Your task to perform on an android device: change the clock display to digital Image 0: 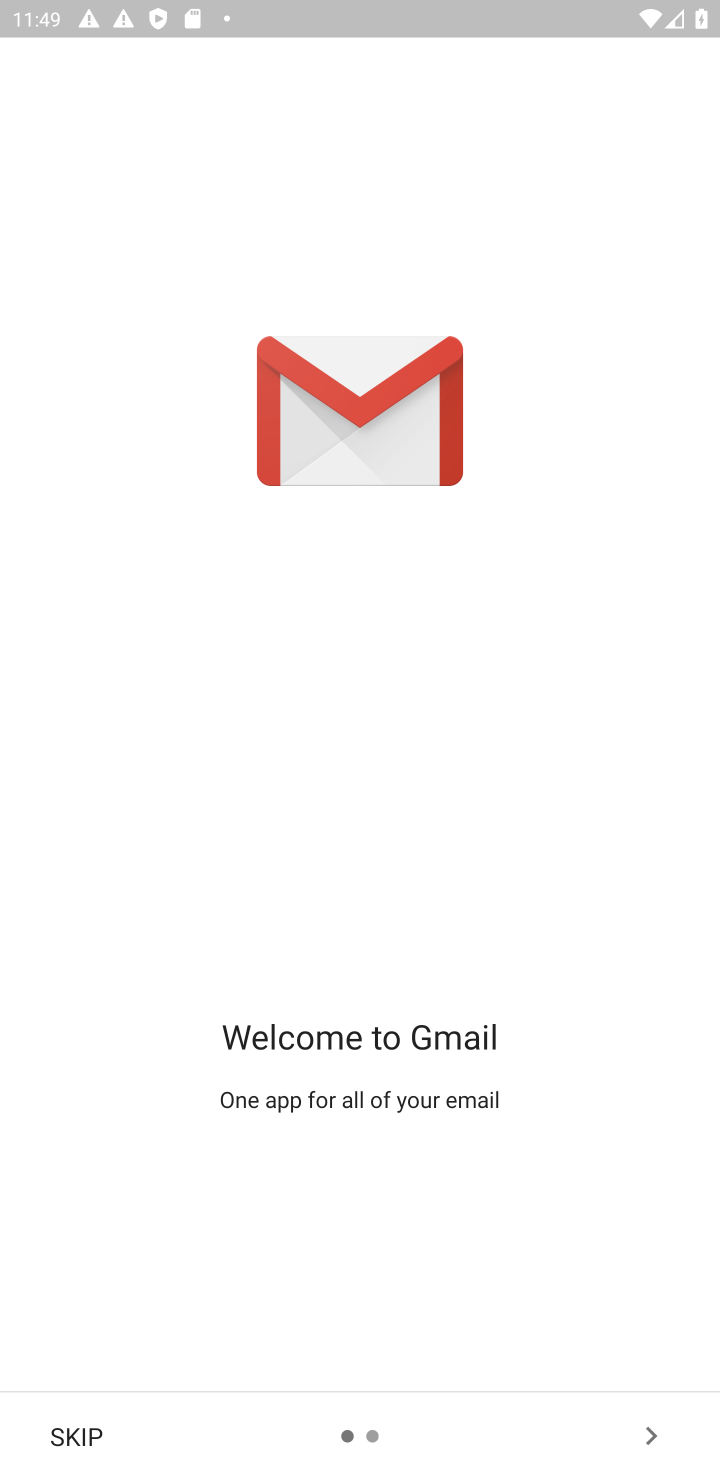
Step 0: press home button
Your task to perform on an android device: change the clock display to digital Image 1: 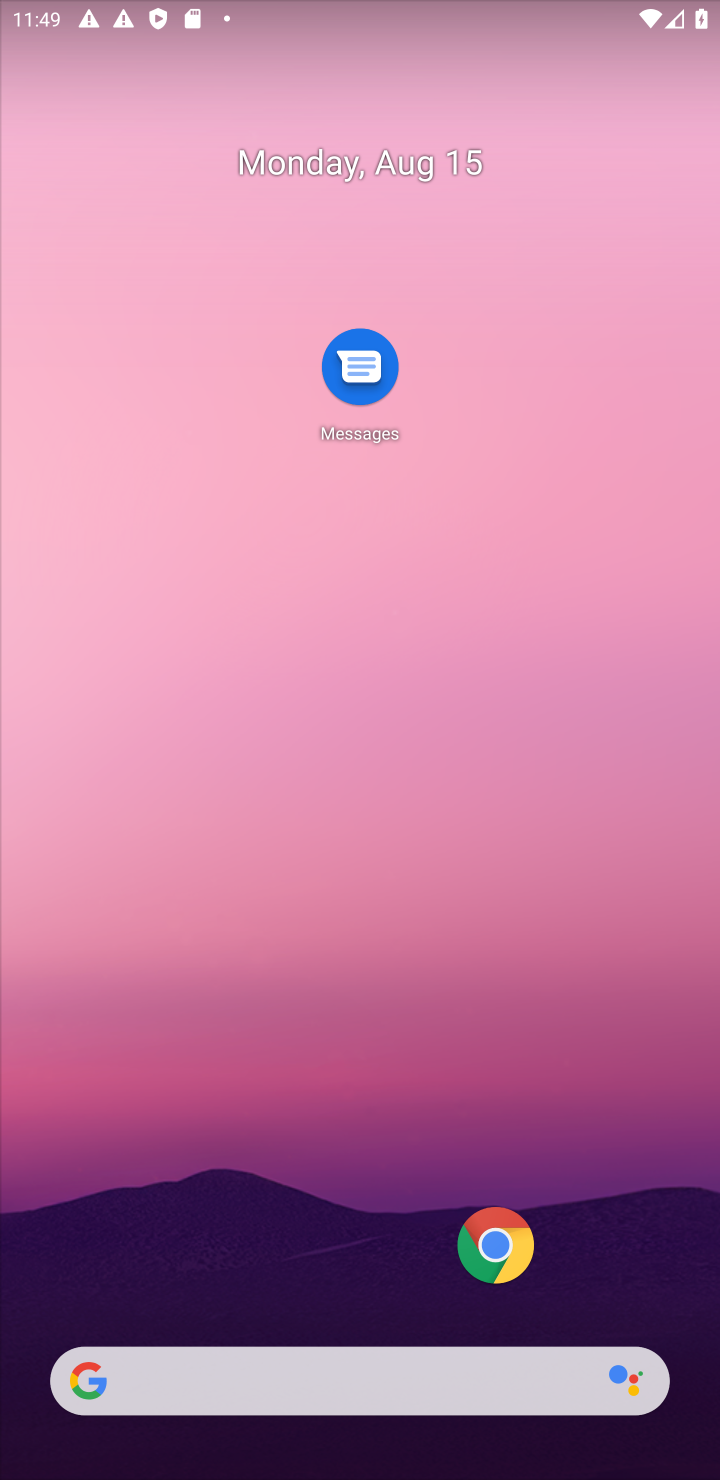
Step 1: drag from (299, 1289) to (316, 419)
Your task to perform on an android device: change the clock display to digital Image 2: 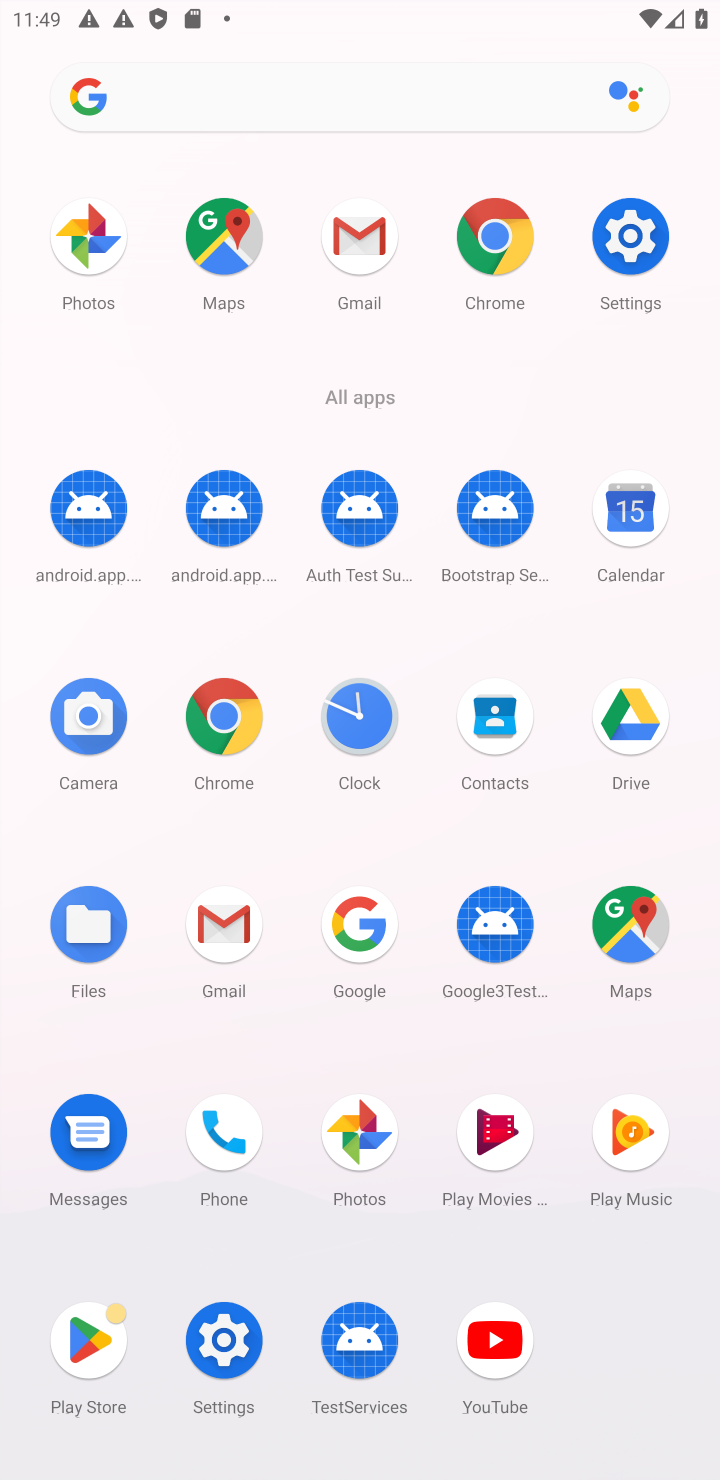
Step 2: click (356, 709)
Your task to perform on an android device: change the clock display to digital Image 3: 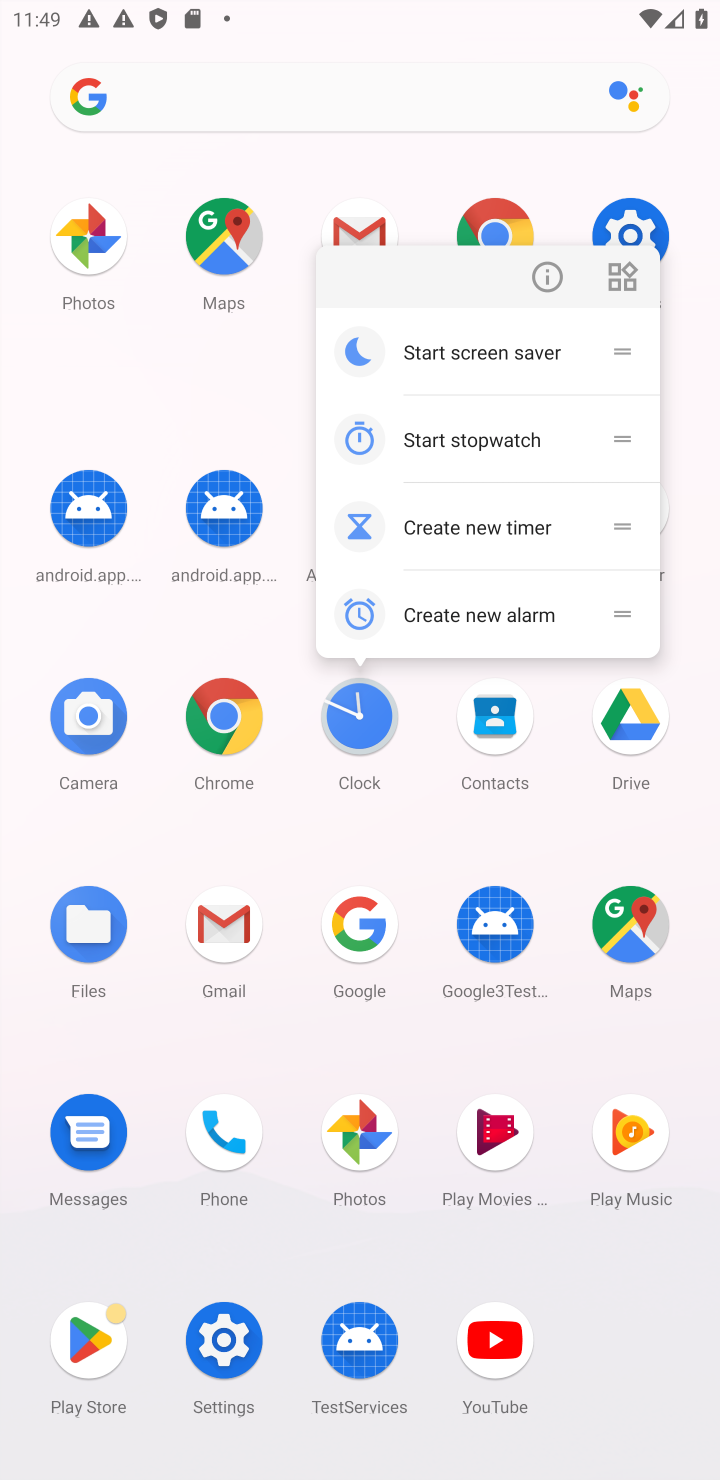
Step 3: click (347, 701)
Your task to perform on an android device: change the clock display to digital Image 4: 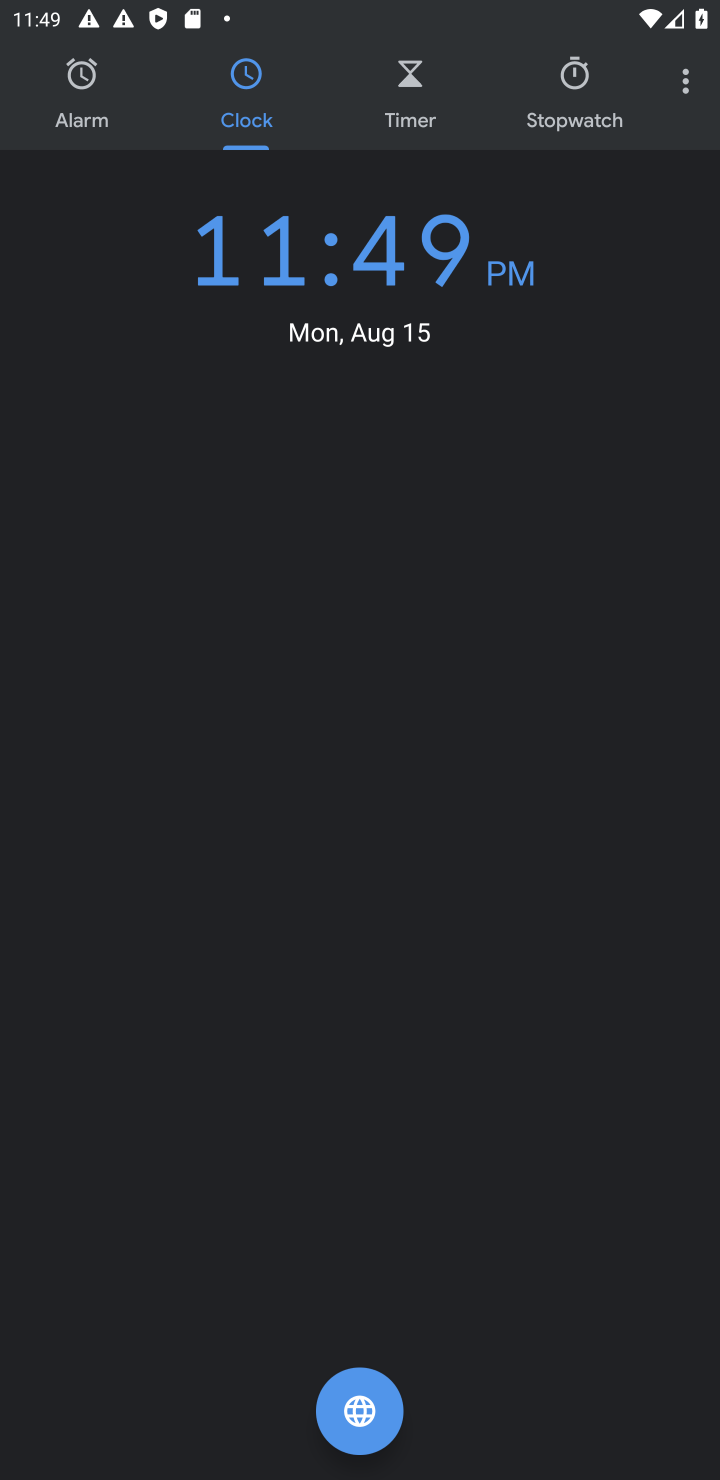
Step 4: click (705, 73)
Your task to perform on an android device: change the clock display to digital Image 5: 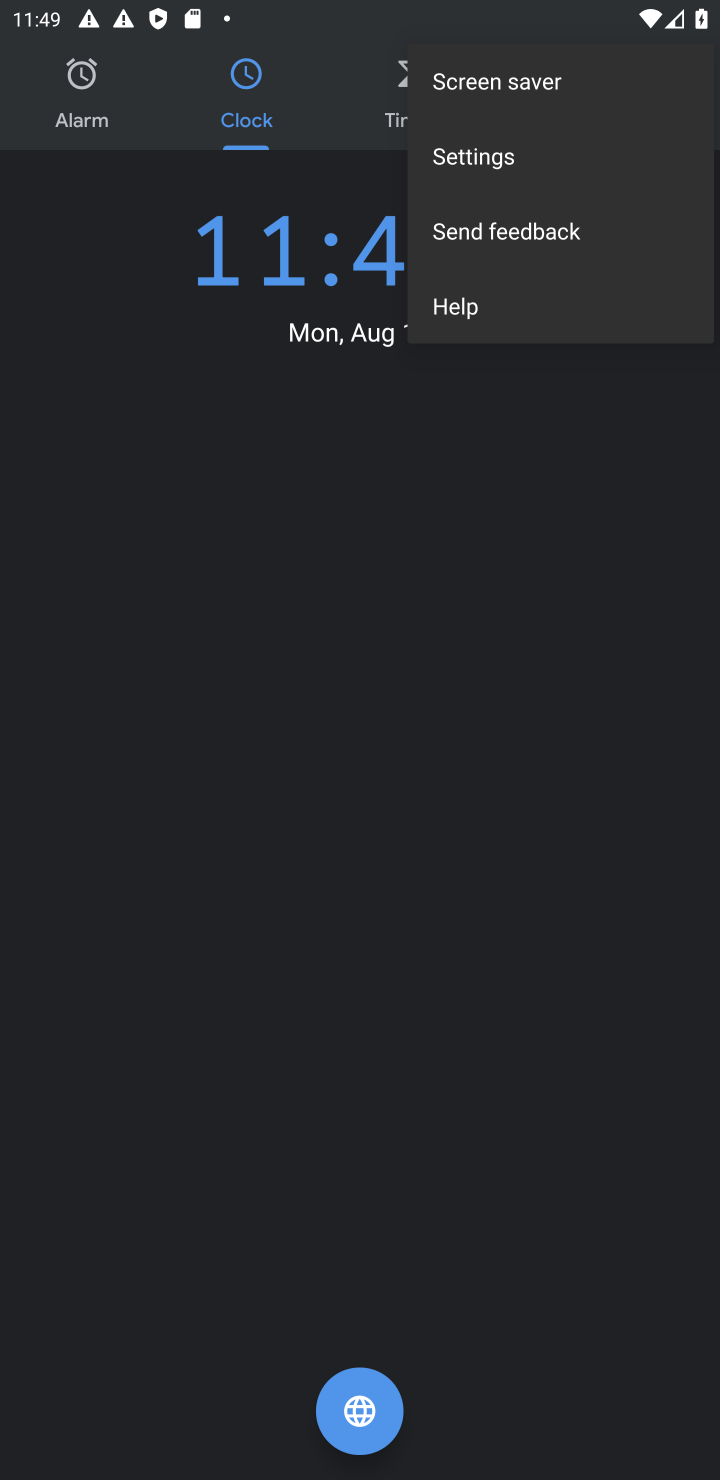
Step 5: click (412, 145)
Your task to perform on an android device: change the clock display to digital Image 6: 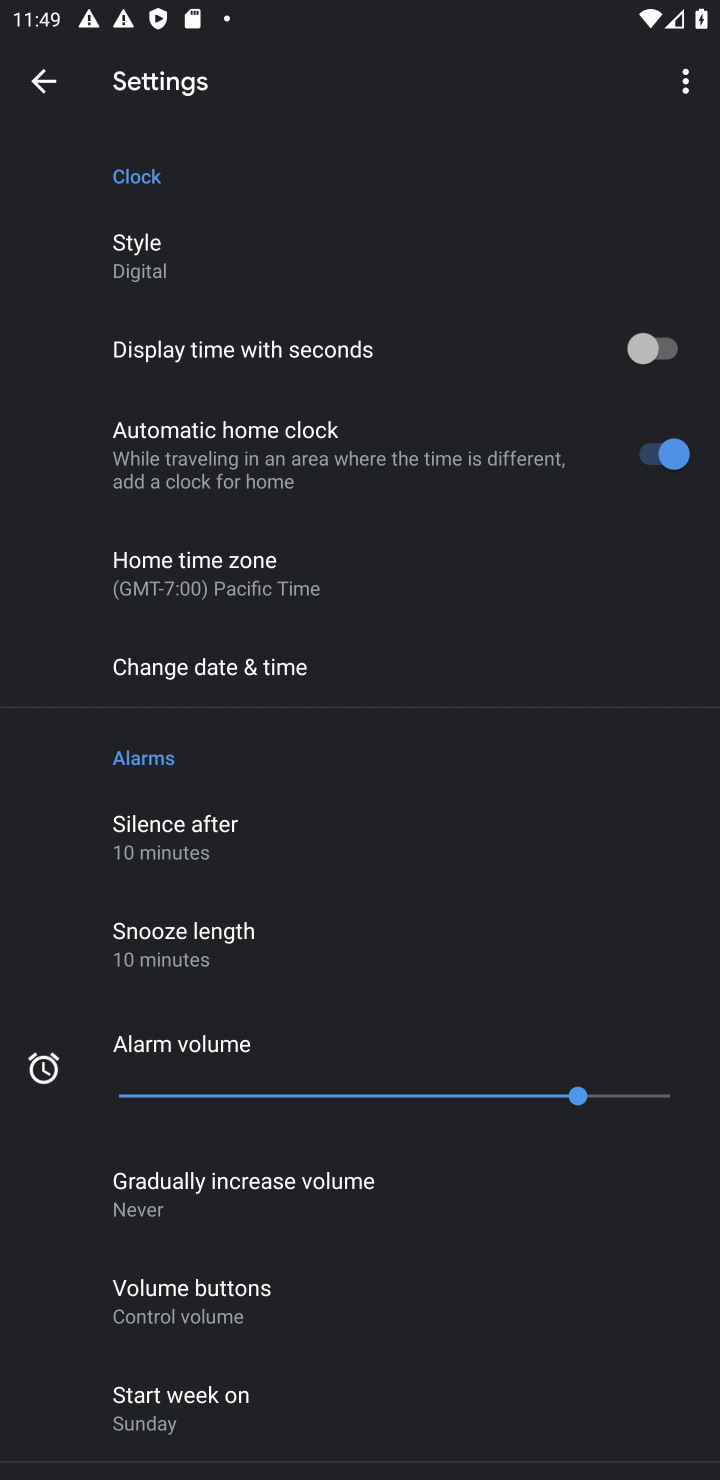
Step 6: task complete